Your task to perform on an android device: see tabs open on other devices in the chrome app Image 0: 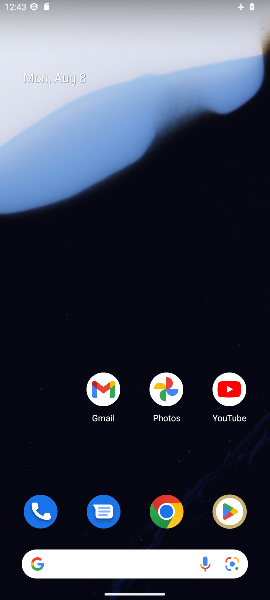
Step 0: click (159, 514)
Your task to perform on an android device: see tabs open on other devices in the chrome app Image 1: 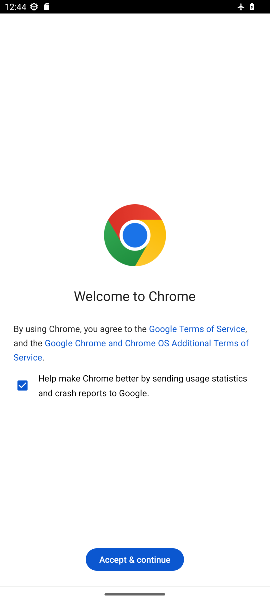
Step 1: click (158, 558)
Your task to perform on an android device: see tabs open on other devices in the chrome app Image 2: 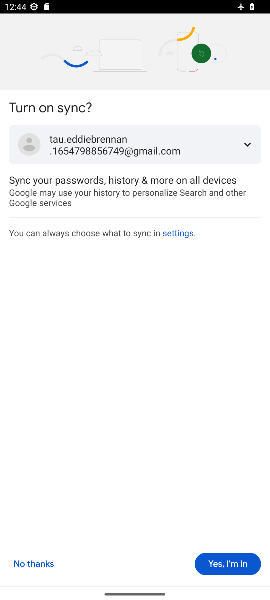
Step 2: click (245, 569)
Your task to perform on an android device: see tabs open on other devices in the chrome app Image 3: 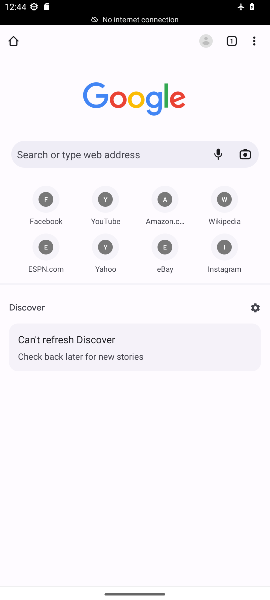
Step 3: click (260, 35)
Your task to perform on an android device: see tabs open on other devices in the chrome app Image 4: 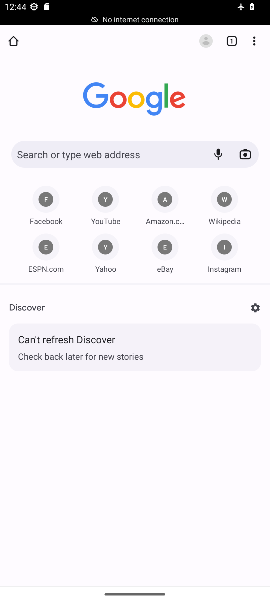
Step 4: click (258, 34)
Your task to perform on an android device: see tabs open on other devices in the chrome app Image 5: 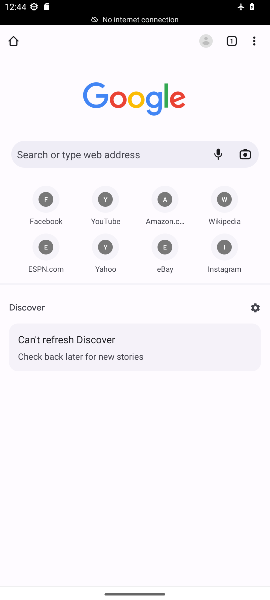
Step 5: click (253, 40)
Your task to perform on an android device: see tabs open on other devices in the chrome app Image 6: 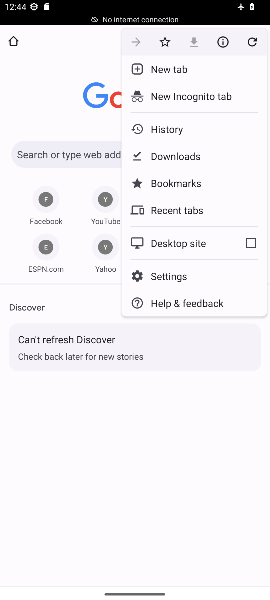
Step 6: click (182, 204)
Your task to perform on an android device: see tabs open on other devices in the chrome app Image 7: 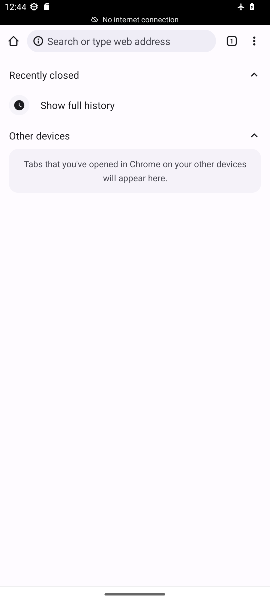
Step 7: task complete